Your task to perform on an android device: Go to display settings Image 0: 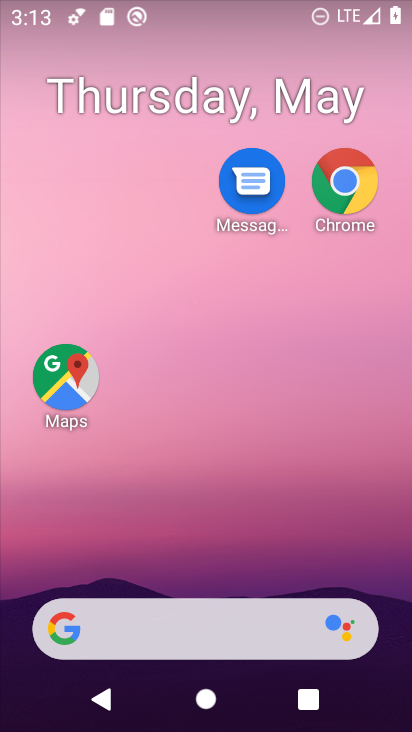
Step 0: drag from (159, 584) to (291, 10)
Your task to perform on an android device: Go to display settings Image 1: 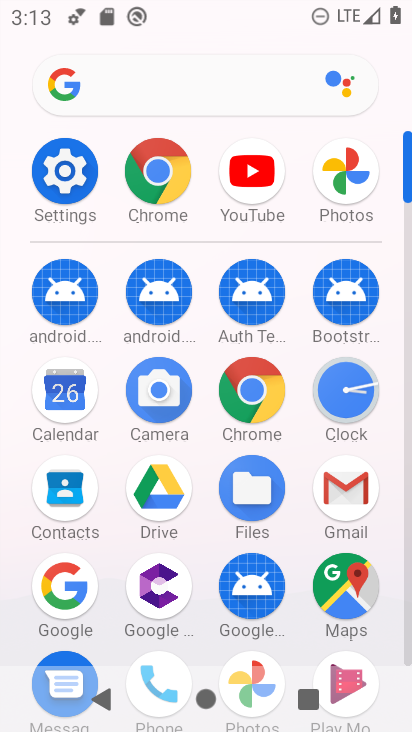
Step 1: click (53, 162)
Your task to perform on an android device: Go to display settings Image 2: 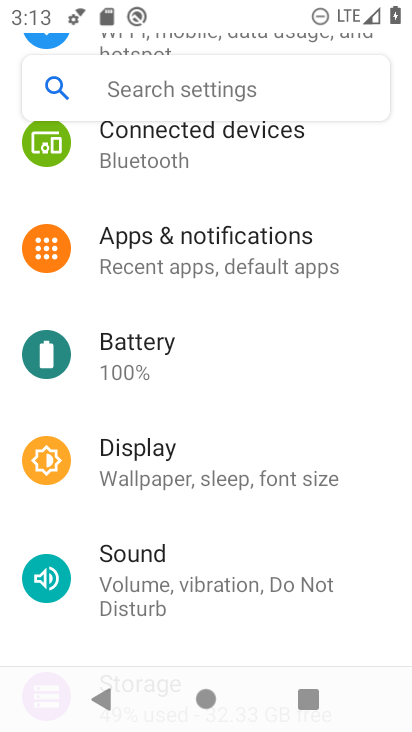
Step 2: click (224, 471)
Your task to perform on an android device: Go to display settings Image 3: 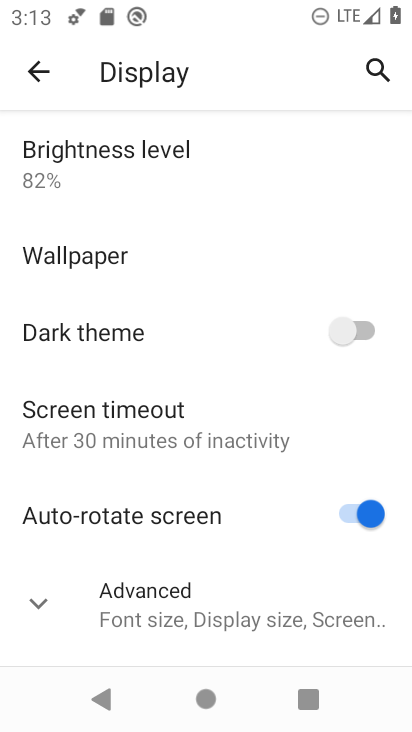
Step 3: task complete